Your task to perform on an android device: change notification settings in the gmail app Image 0: 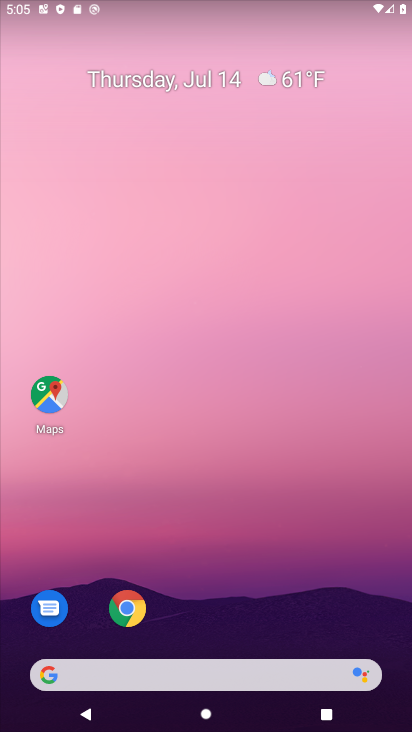
Step 0: drag from (258, 587) to (231, 106)
Your task to perform on an android device: change notification settings in the gmail app Image 1: 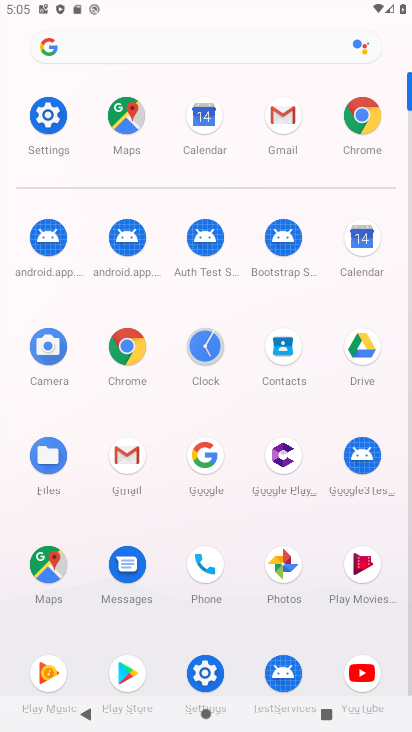
Step 1: click (281, 103)
Your task to perform on an android device: change notification settings in the gmail app Image 2: 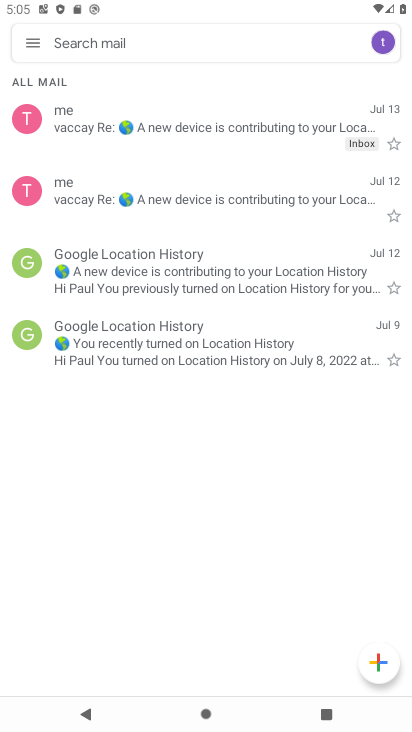
Step 2: click (33, 41)
Your task to perform on an android device: change notification settings in the gmail app Image 3: 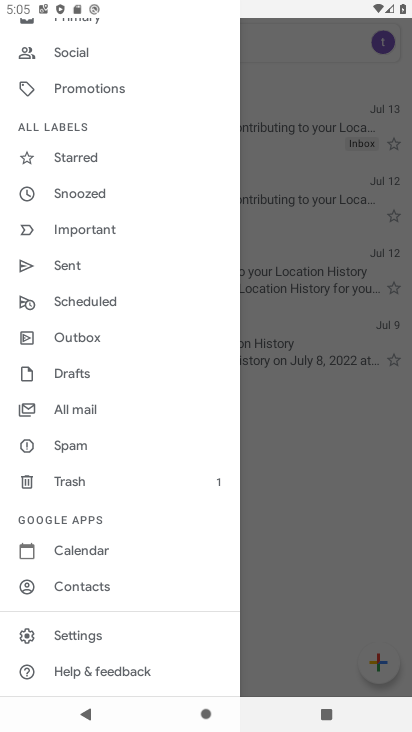
Step 3: click (97, 641)
Your task to perform on an android device: change notification settings in the gmail app Image 4: 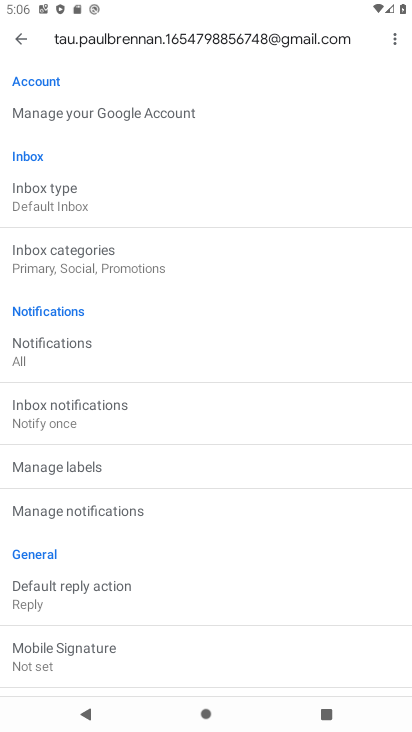
Step 4: click (84, 515)
Your task to perform on an android device: change notification settings in the gmail app Image 5: 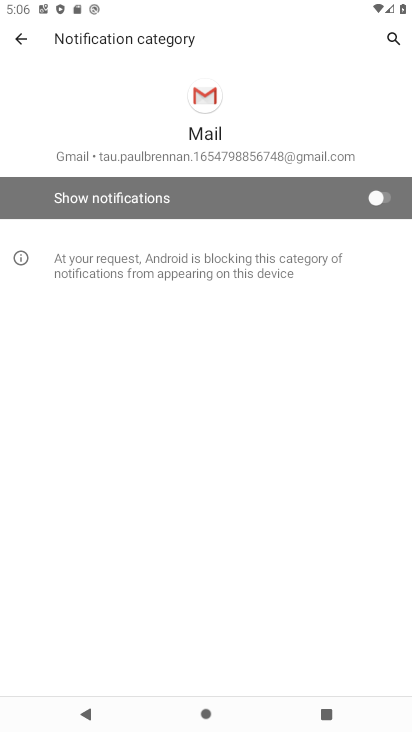
Step 5: click (375, 206)
Your task to perform on an android device: change notification settings in the gmail app Image 6: 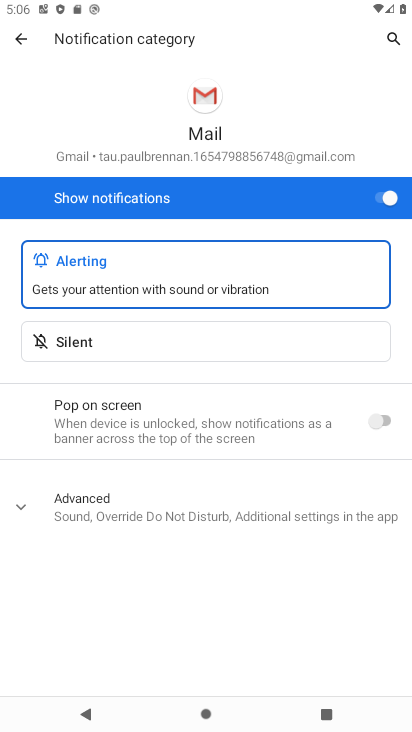
Step 6: task complete